Your task to perform on an android device: Go to wifi settings Image 0: 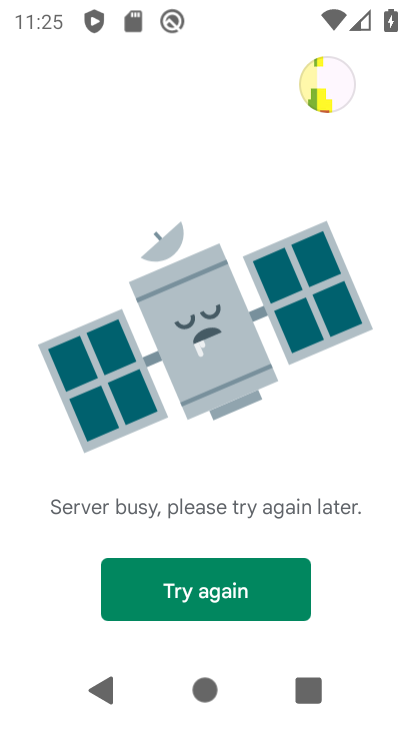
Step 0: press home button
Your task to perform on an android device: Go to wifi settings Image 1: 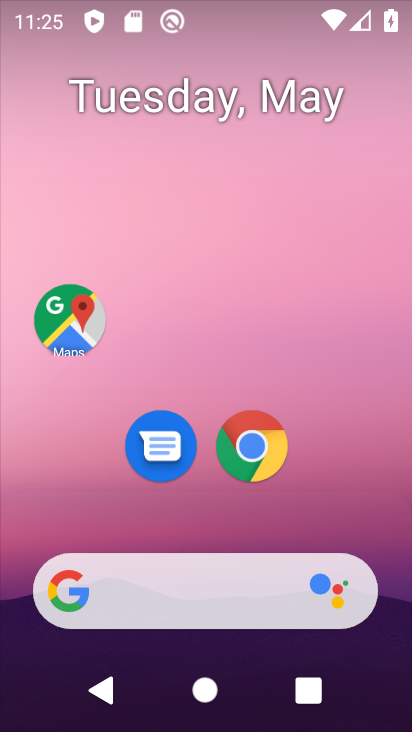
Step 1: drag from (113, 549) to (189, 123)
Your task to perform on an android device: Go to wifi settings Image 2: 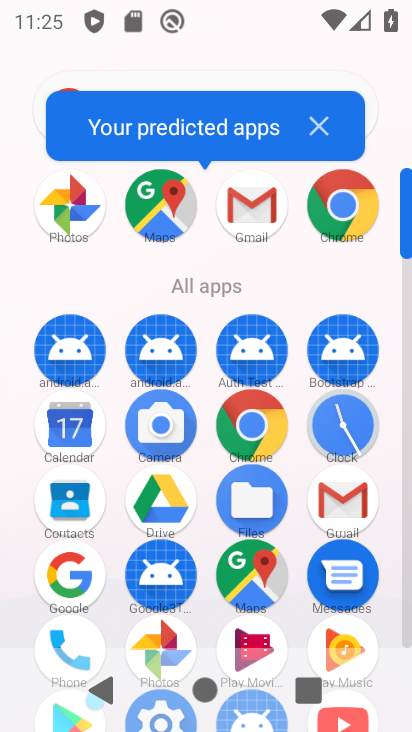
Step 2: drag from (159, 631) to (214, 385)
Your task to perform on an android device: Go to wifi settings Image 3: 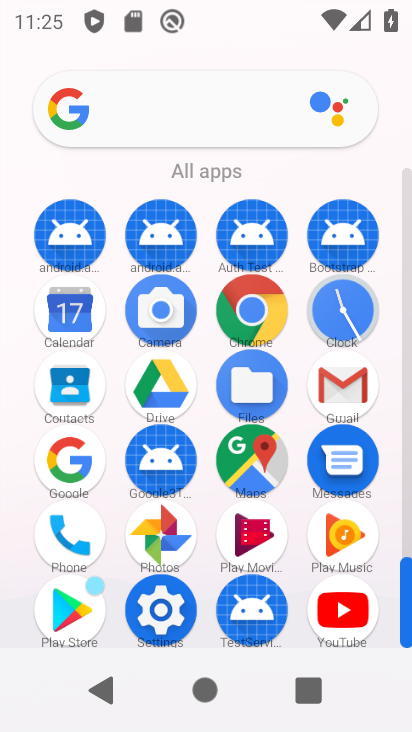
Step 3: click (167, 619)
Your task to perform on an android device: Go to wifi settings Image 4: 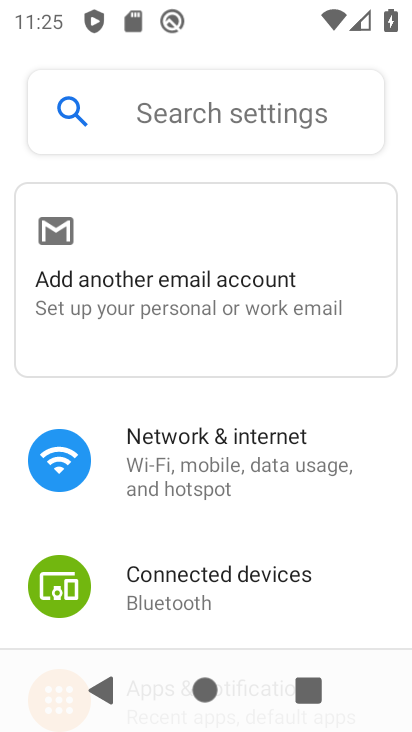
Step 4: click (263, 475)
Your task to perform on an android device: Go to wifi settings Image 5: 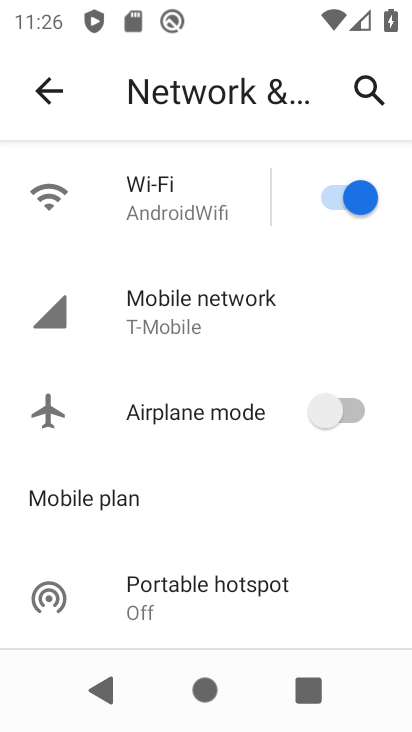
Step 5: click (225, 204)
Your task to perform on an android device: Go to wifi settings Image 6: 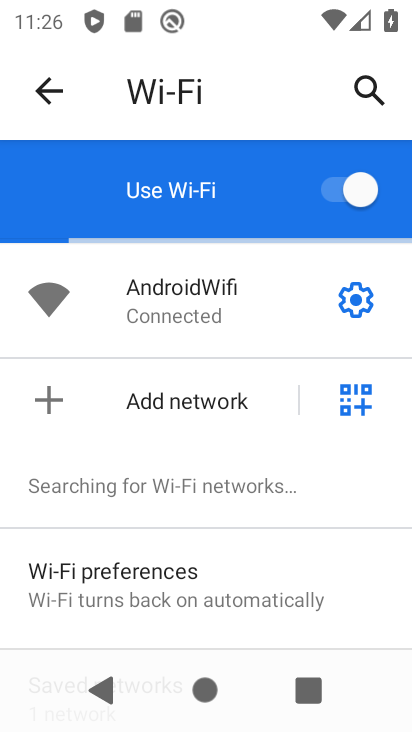
Step 6: task complete